Your task to perform on an android device: check the backup settings in the google photos Image 0: 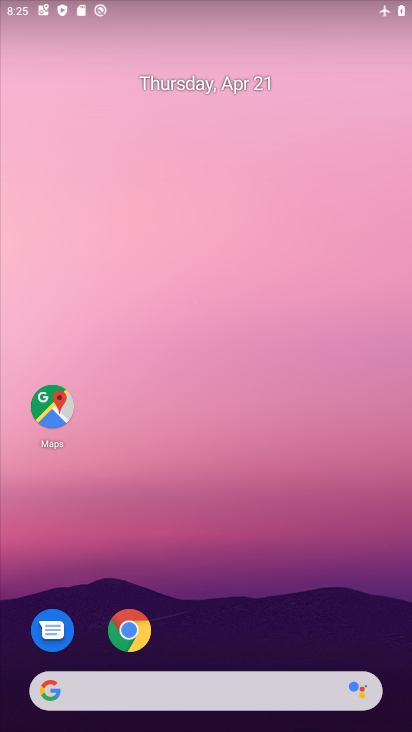
Step 0: drag from (182, 596) to (296, 13)
Your task to perform on an android device: check the backup settings in the google photos Image 1: 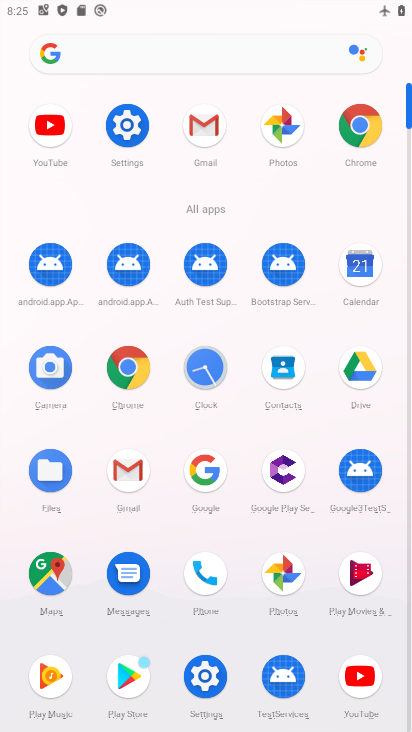
Step 1: click (272, 590)
Your task to perform on an android device: check the backup settings in the google photos Image 2: 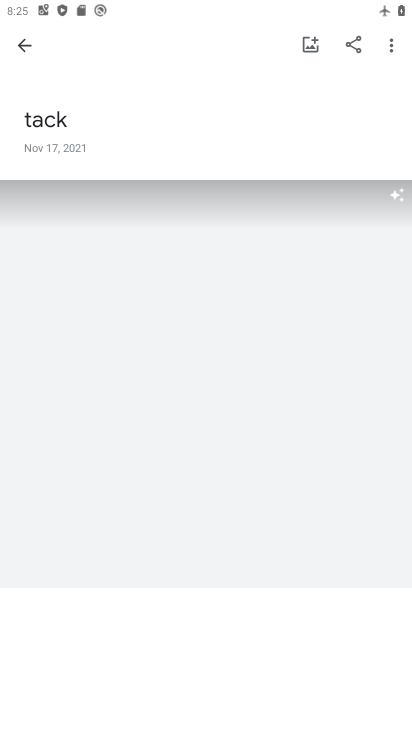
Step 2: click (29, 60)
Your task to perform on an android device: check the backup settings in the google photos Image 3: 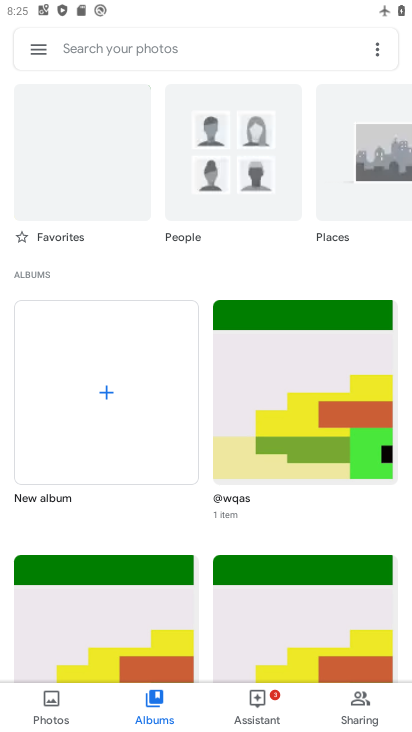
Step 3: click (54, 704)
Your task to perform on an android device: check the backup settings in the google photos Image 4: 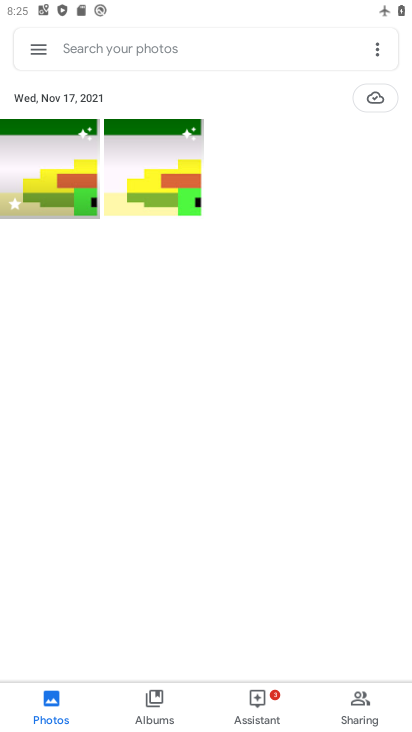
Step 4: click (40, 46)
Your task to perform on an android device: check the backup settings in the google photos Image 5: 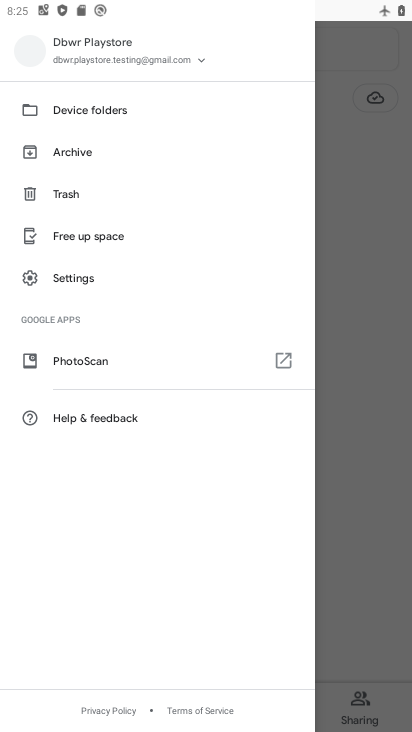
Step 5: click (79, 277)
Your task to perform on an android device: check the backup settings in the google photos Image 6: 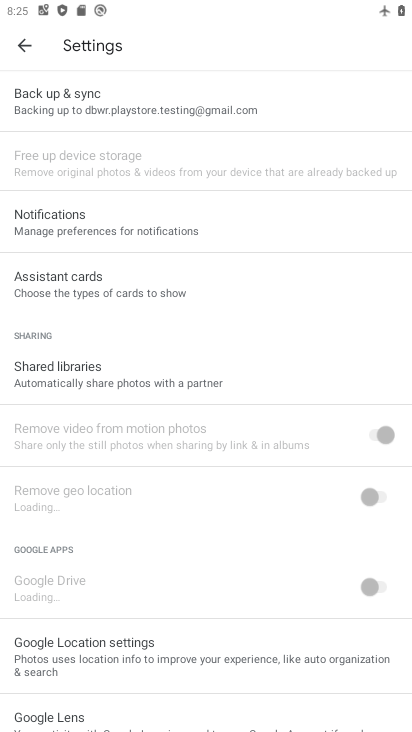
Step 6: click (74, 94)
Your task to perform on an android device: check the backup settings in the google photos Image 7: 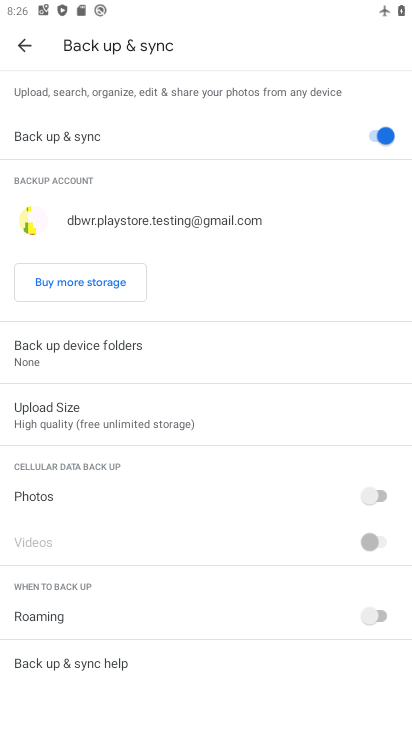
Step 7: press home button
Your task to perform on an android device: check the backup settings in the google photos Image 8: 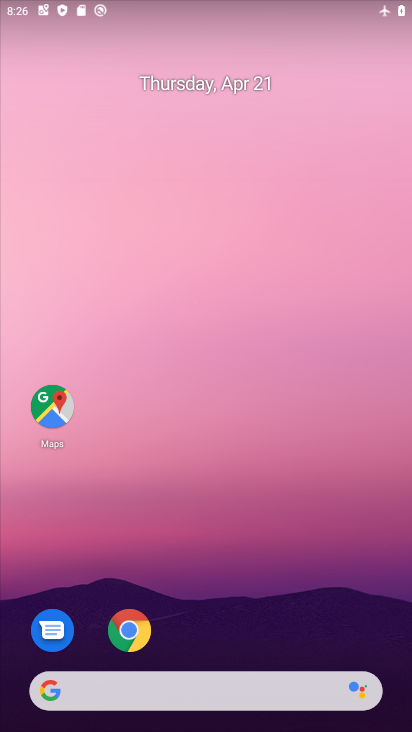
Step 8: drag from (222, 526) to (367, 2)
Your task to perform on an android device: check the backup settings in the google photos Image 9: 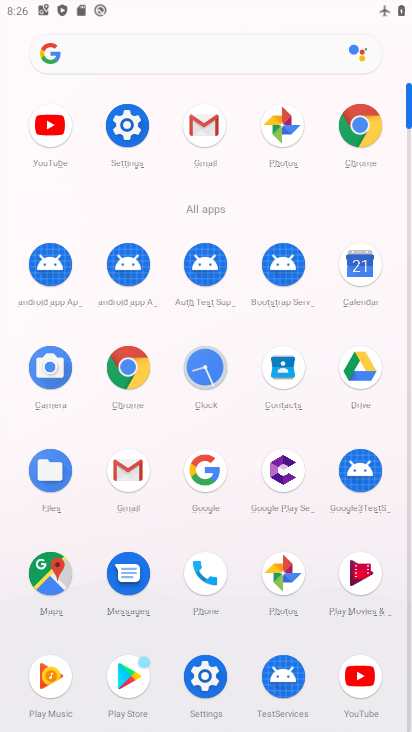
Step 9: click (293, 583)
Your task to perform on an android device: check the backup settings in the google photos Image 10: 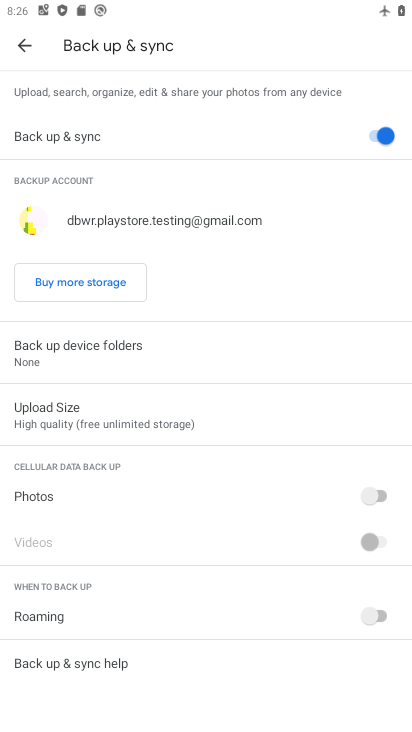
Step 10: task complete